Your task to perform on an android device: show emergency info Image 0: 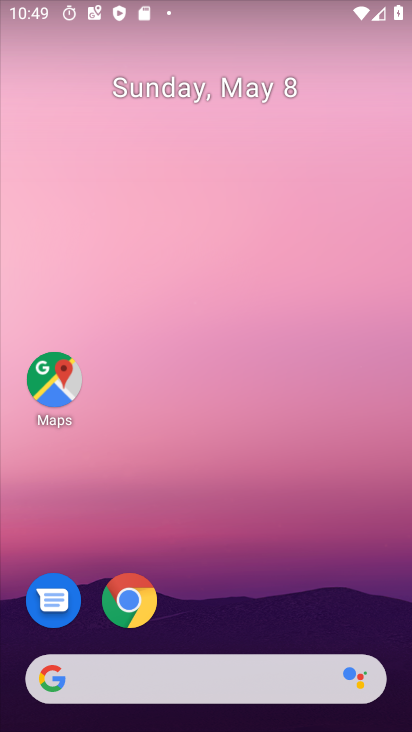
Step 0: press home button
Your task to perform on an android device: show emergency info Image 1: 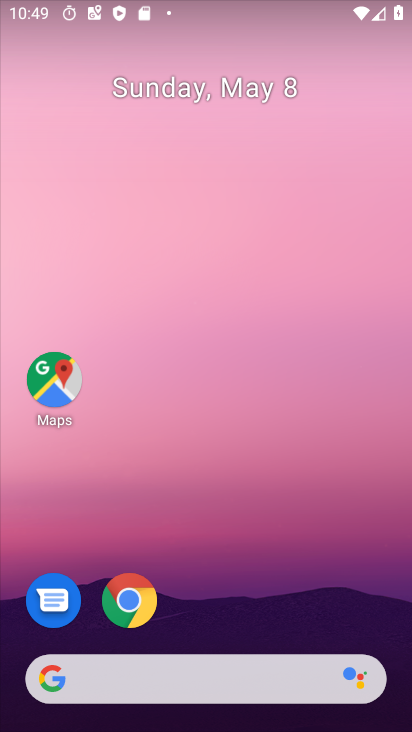
Step 1: drag from (52, 537) to (236, 121)
Your task to perform on an android device: show emergency info Image 2: 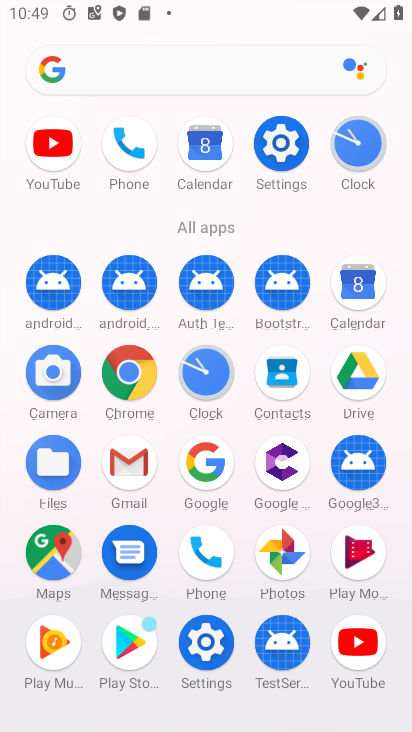
Step 2: click (268, 150)
Your task to perform on an android device: show emergency info Image 3: 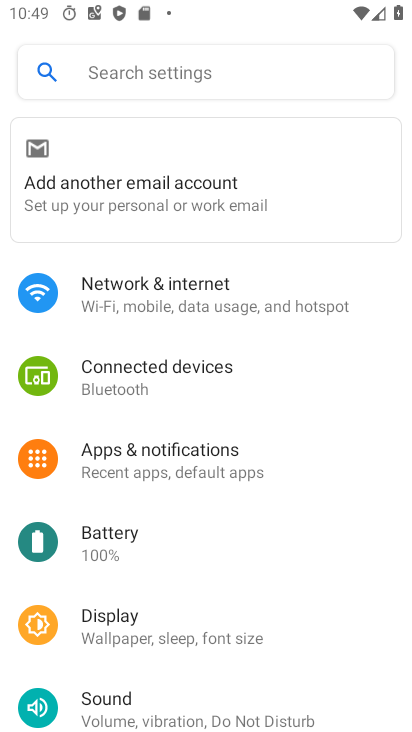
Step 3: drag from (98, 700) to (239, 255)
Your task to perform on an android device: show emergency info Image 4: 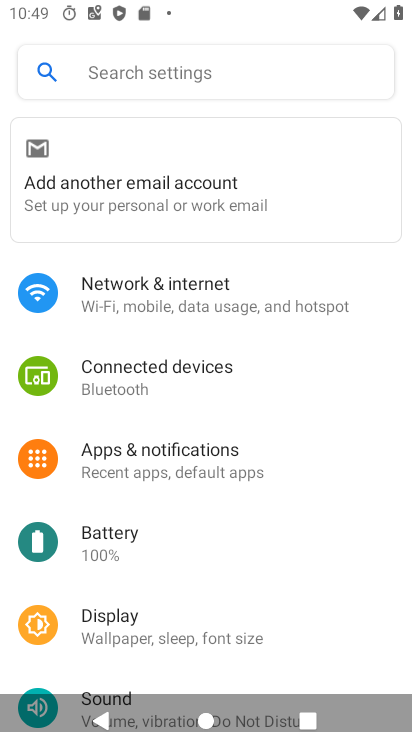
Step 4: drag from (155, 616) to (354, 147)
Your task to perform on an android device: show emergency info Image 5: 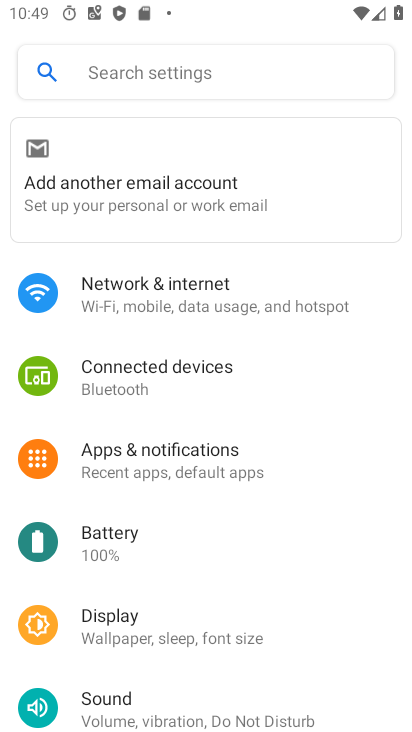
Step 5: drag from (62, 669) to (300, 250)
Your task to perform on an android device: show emergency info Image 6: 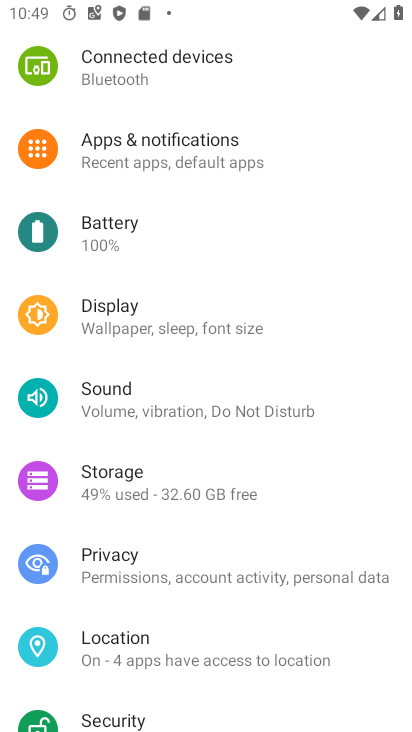
Step 6: drag from (183, 702) to (390, 315)
Your task to perform on an android device: show emergency info Image 7: 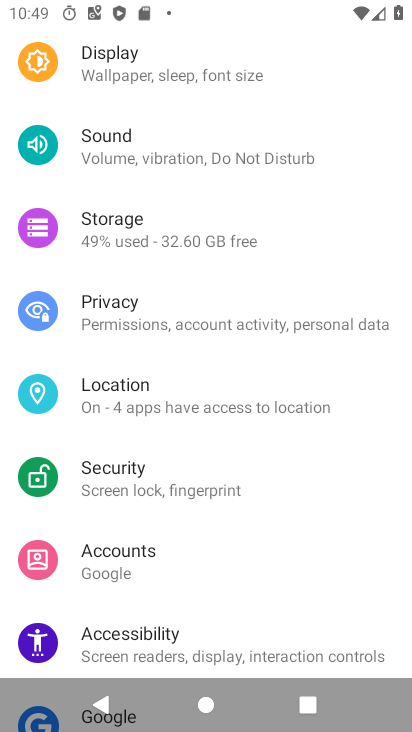
Step 7: drag from (22, 581) to (238, 227)
Your task to perform on an android device: show emergency info Image 8: 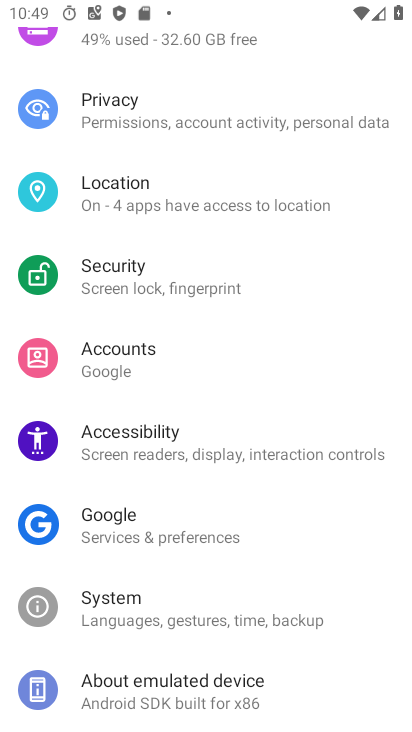
Step 8: drag from (33, 522) to (248, 218)
Your task to perform on an android device: show emergency info Image 9: 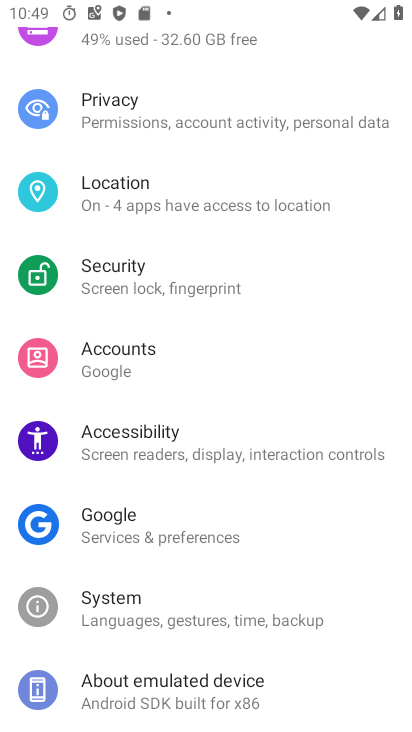
Step 9: click (193, 682)
Your task to perform on an android device: show emergency info Image 10: 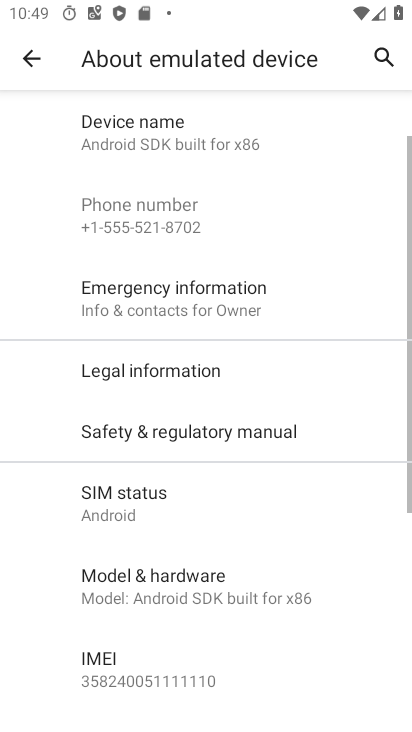
Step 10: click (217, 288)
Your task to perform on an android device: show emergency info Image 11: 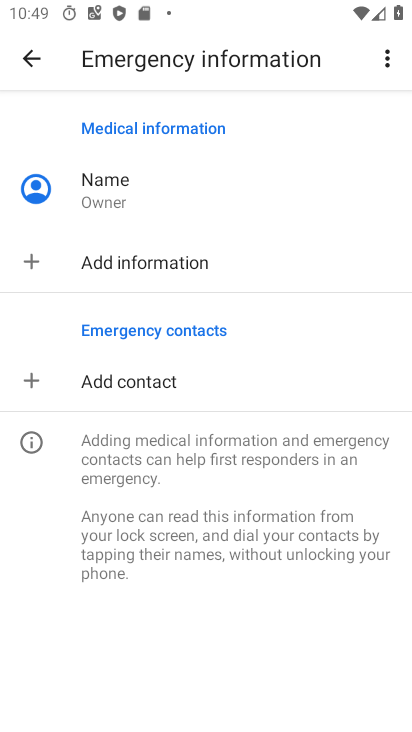
Step 11: task complete